Your task to perform on an android device: find photos in the google photos app Image 0: 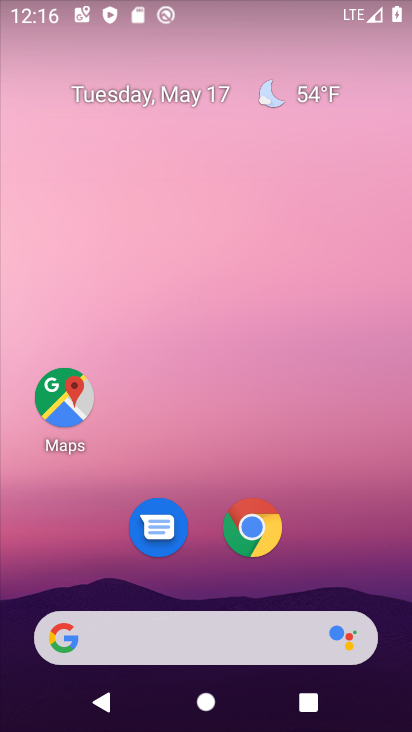
Step 0: drag from (258, 608) to (236, 198)
Your task to perform on an android device: find photos in the google photos app Image 1: 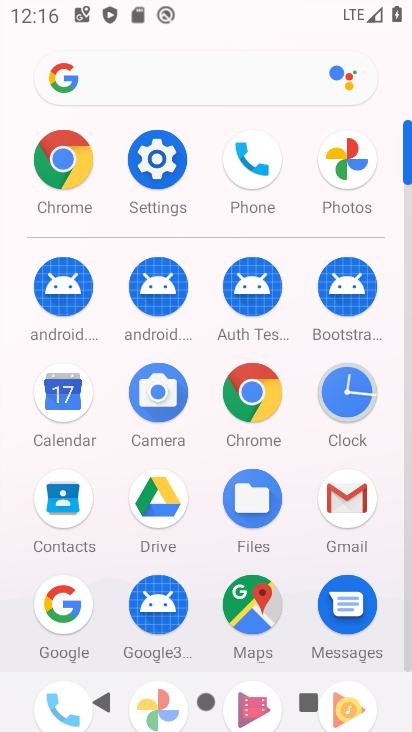
Step 1: drag from (207, 520) to (210, 378)
Your task to perform on an android device: find photos in the google photos app Image 2: 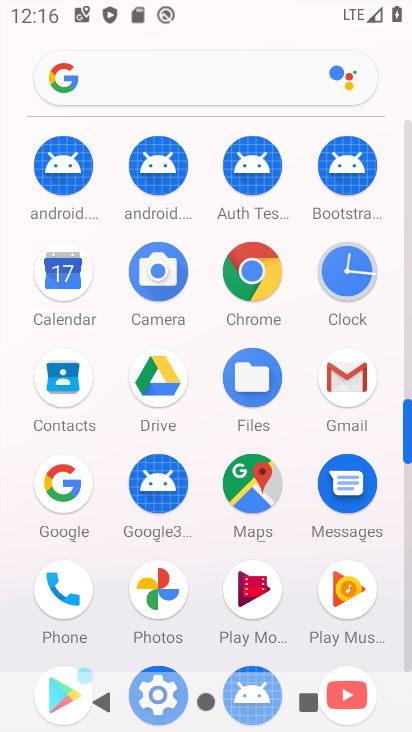
Step 2: click (166, 571)
Your task to perform on an android device: find photos in the google photos app Image 3: 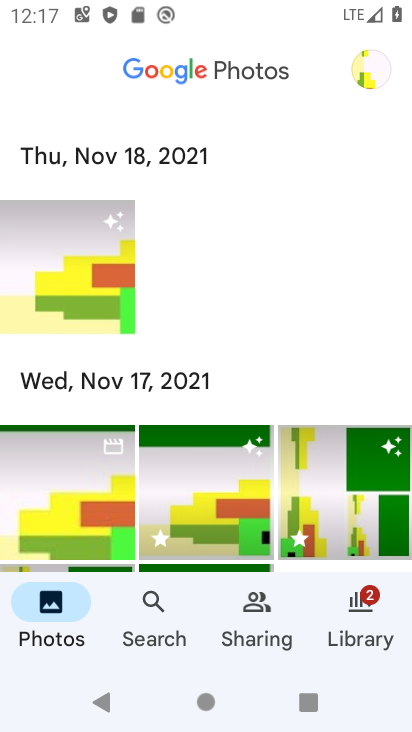
Step 3: task complete